Your task to perform on an android device: toggle notifications settings in the gmail app Image 0: 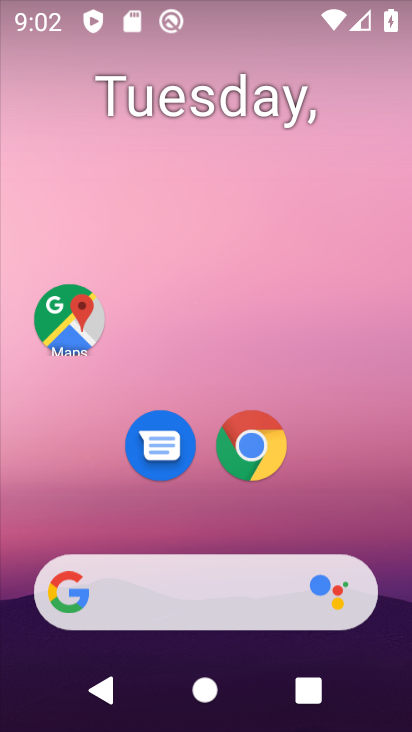
Step 0: drag from (179, 541) to (261, 142)
Your task to perform on an android device: toggle notifications settings in the gmail app Image 1: 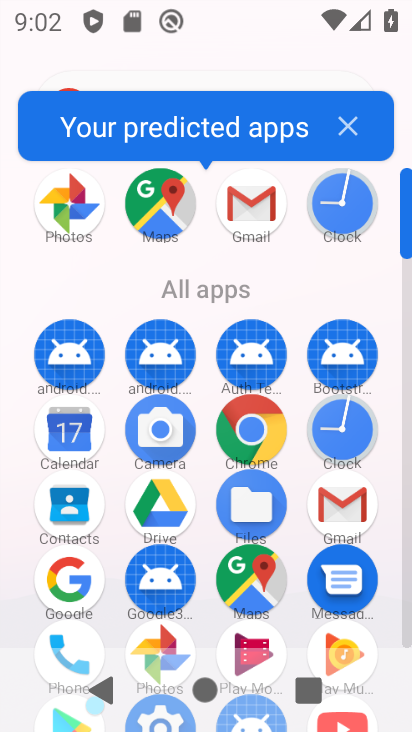
Step 1: click (252, 229)
Your task to perform on an android device: toggle notifications settings in the gmail app Image 2: 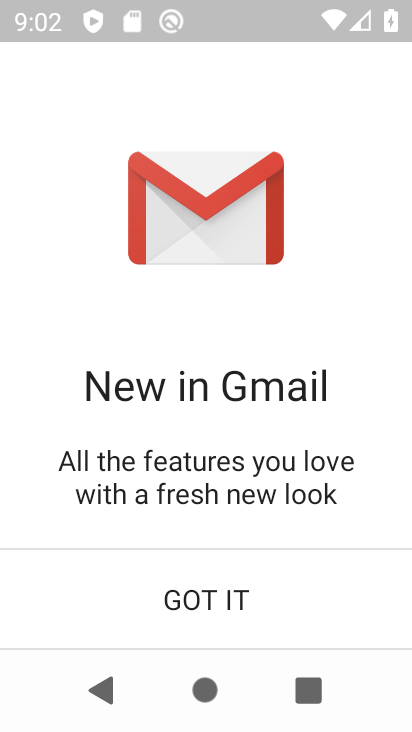
Step 2: click (178, 611)
Your task to perform on an android device: toggle notifications settings in the gmail app Image 3: 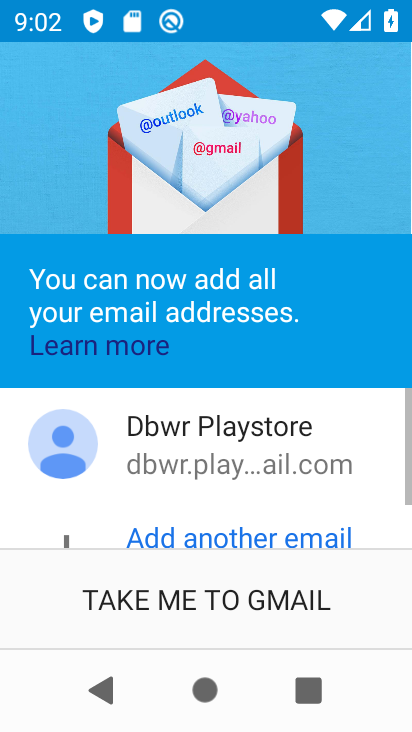
Step 3: click (178, 611)
Your task to perform on an android device: toggle notifications settings in the gmail app Image 4: 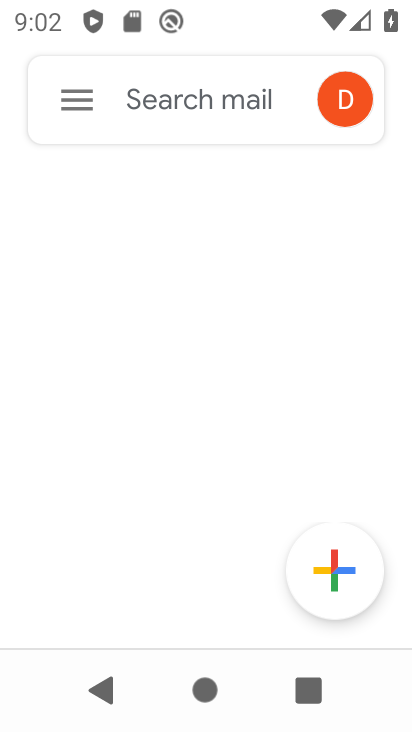
Step 4: click (65, 104)
Your task to perform on an android device: toggle notifications settings in the gmail app Image 5: 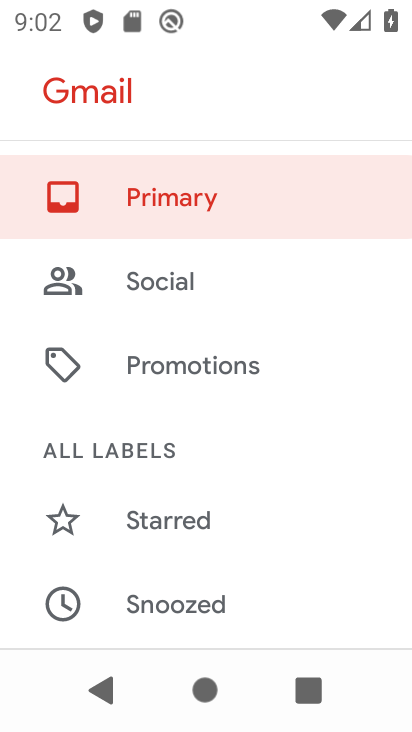
Step 5: drag from (211, 452) to (289, 176)
Your task to perform on an android device: toggle notifications settings in the gmail app Image 6: 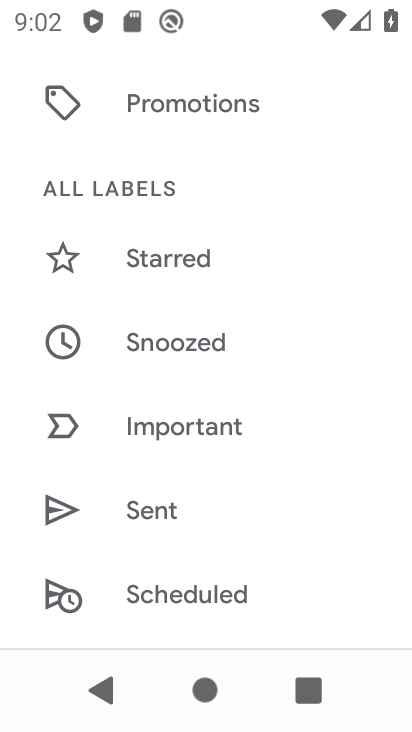
Step 6: drag from (154, 529) to (214, 128)
Your task to perform on an android device: toggle notifications settings in the gmail app Image 7: 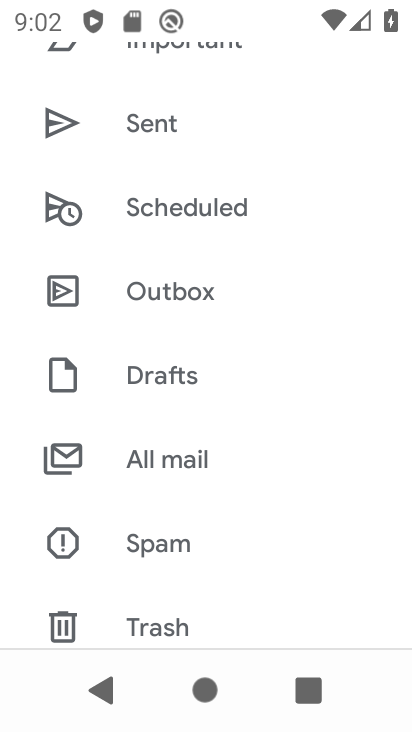
Step 7: drag from (161, 563) to (227, 173)
Your task to perform on an android device: toggle notifications settings in the gmail app Image 8: 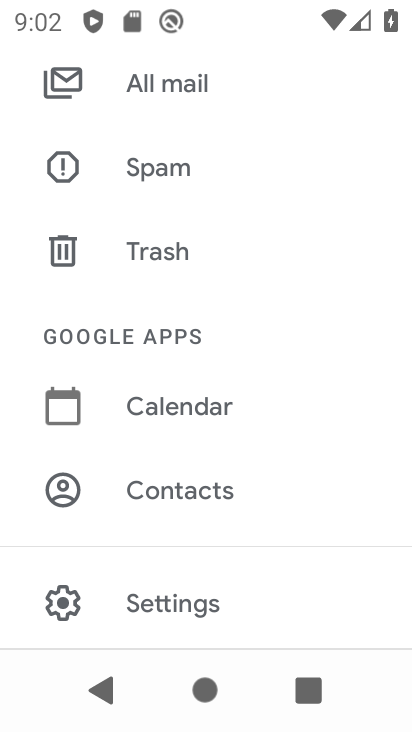
Step 8: click (188, 613)
Your task to perform on an android device: toggle notifications settings in the gmail app Image 9: 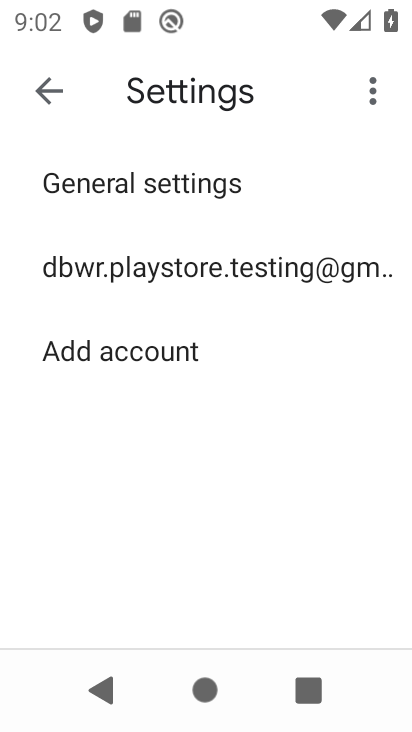
Step 9: click (146, 282)
Your task to perform on an android device: toggle notifications settings in the gmail app Image 10: 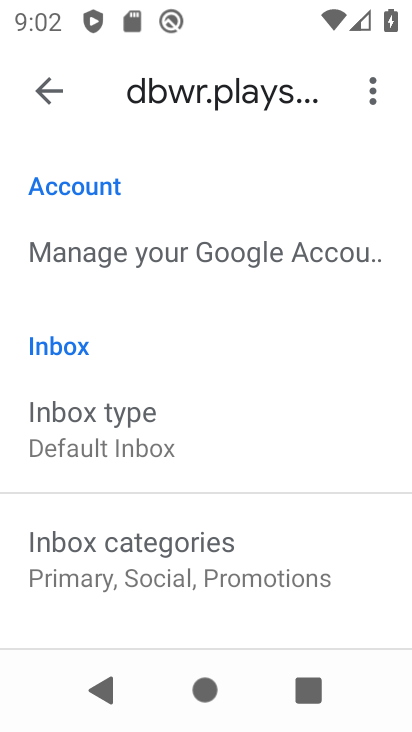
Step 10: drag from (191, 583) to (250, 251)
Your task to perform on an android device: toggle notifications settings in the gmail app Image 11: 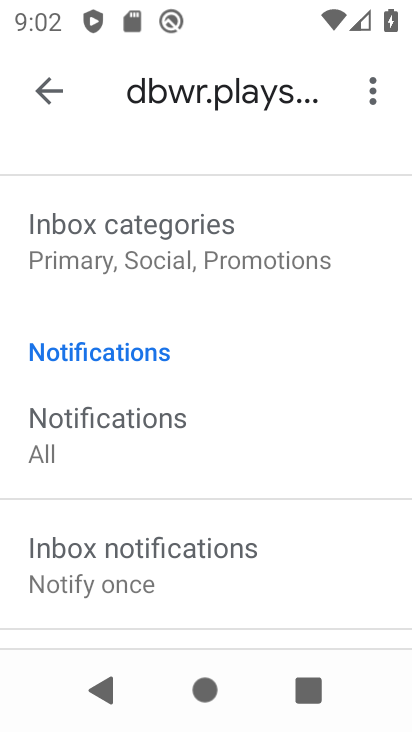
Step 11: click (149, 448)
Your task to perform on an android device: toggle notifications settings in the gmail app Image 12: 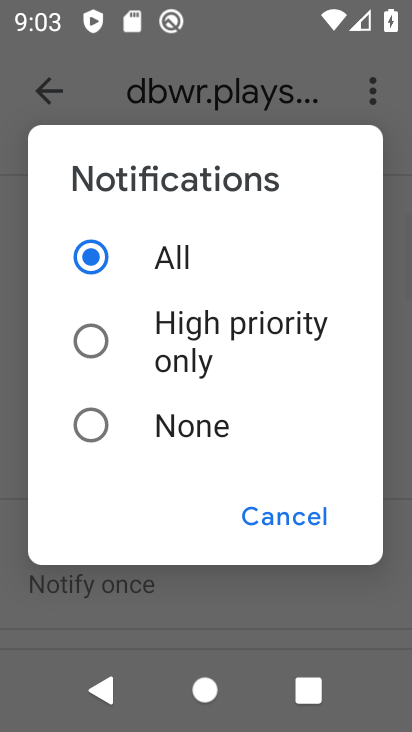
Step 12: click (110, 436)
Your task to perform on an android device: toggle notifications settings in the gmail app Image 13: 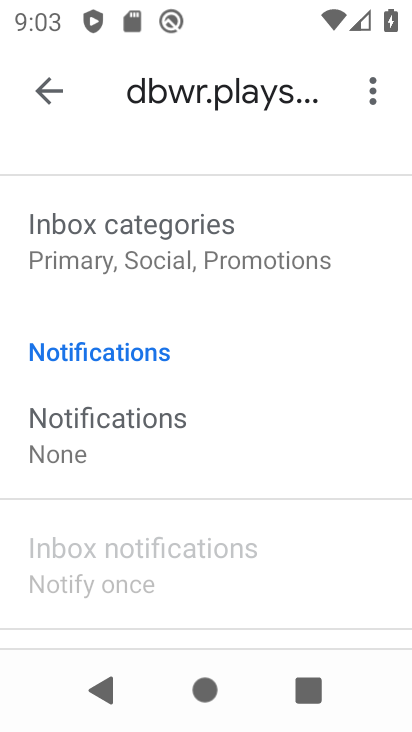
Step 13: task complete